Your task to perform on an android device: turn on bluetooth scan Image 0: 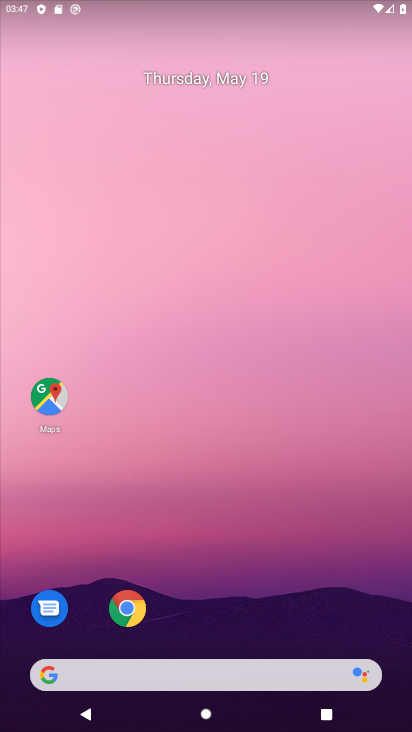
Step 0: drag from (227, 618) to (228, 36)
Your task to perform on an android device: turn on bluetooth scan Image 1: 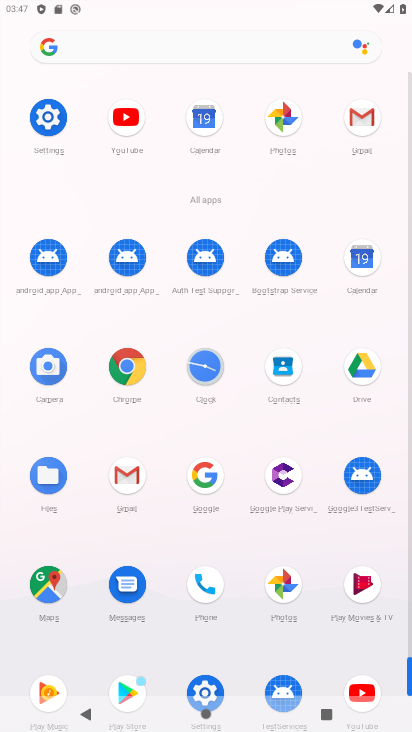
Step 1: click (48, 119)
Your task to perform on an android device: turn on bluetooth scan Image 2: 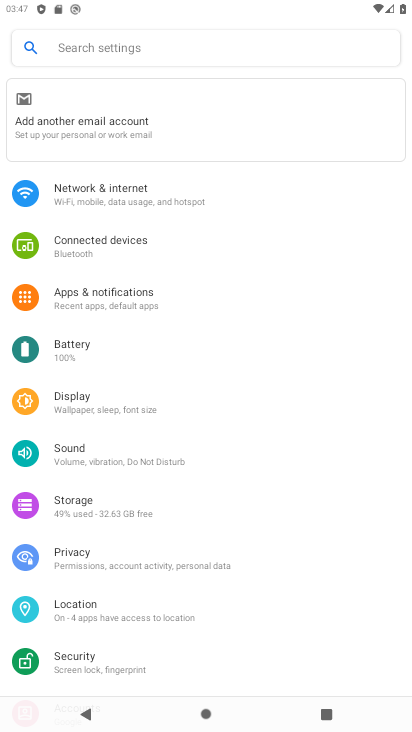
Step 2: drag from (99, 420) to (132, 353)
Your task to perform on an android device: turn on bluetooth scan Image 3: 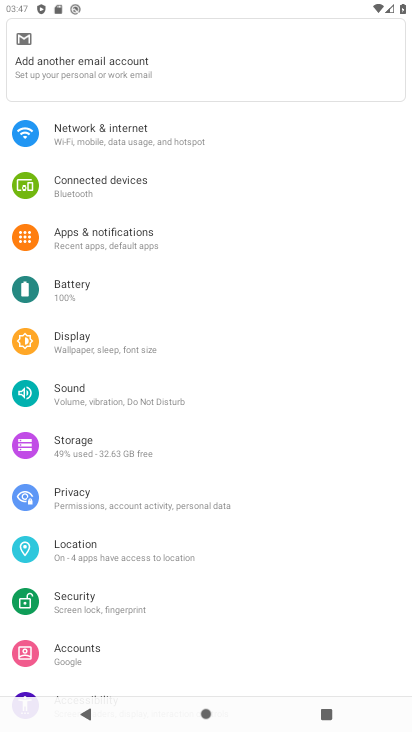
Step 3: drag from (101, 432) to (131, 366)
Your task to perform on an android device: turn on bluetooth scan Image 4: 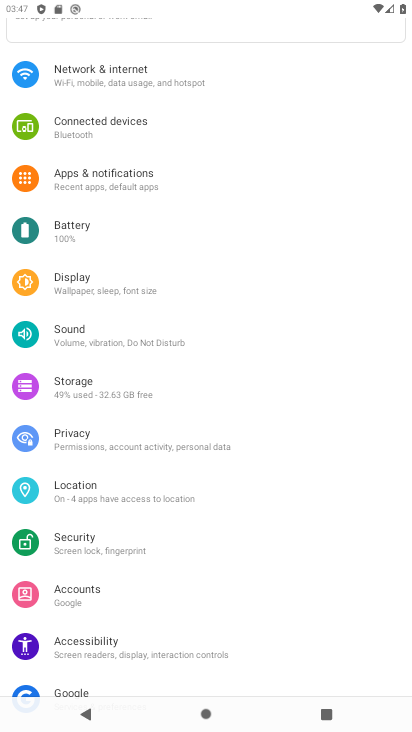
Step 4: click (100, 493)
Your task to perform on an android device: turn on bluetooth scan Image 5: 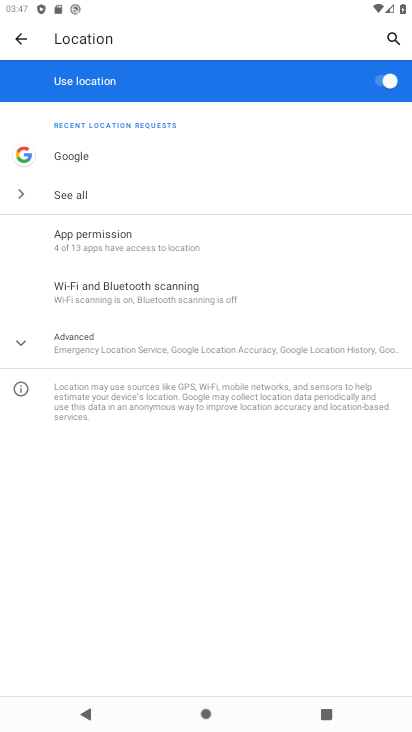
Step 5: click (146, 294)
Your task to perform on an android device: turn on bluetooth scan Image 6: 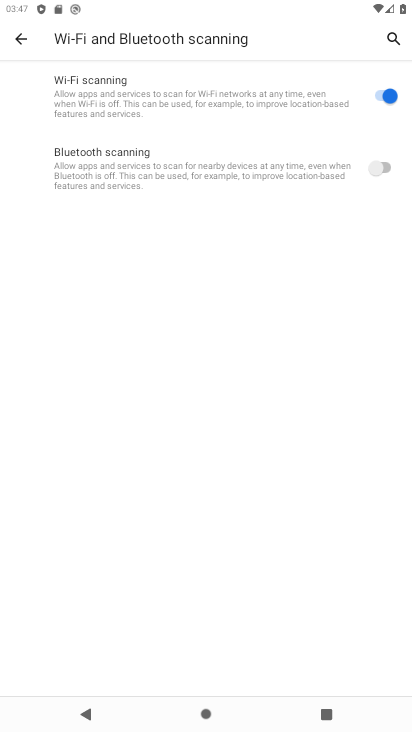
Step 6: click (376, 166)
Your task to perform on an android device: turn on bluetooth scan Image 7: 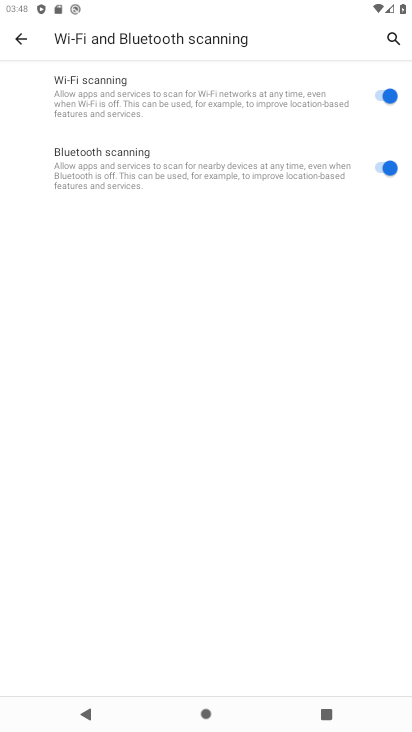
Step 7: task complete